Your task to perform on an android device: Show me recent news Image 0: 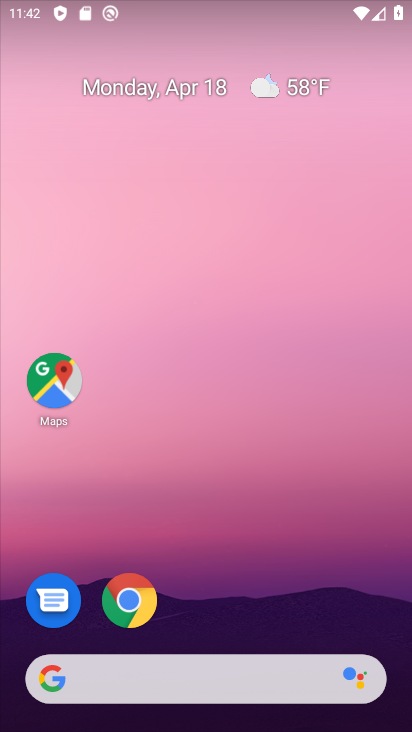
Step 0: click (91, 678)
Your task to perform on an android device: Show me recent news Image 1: 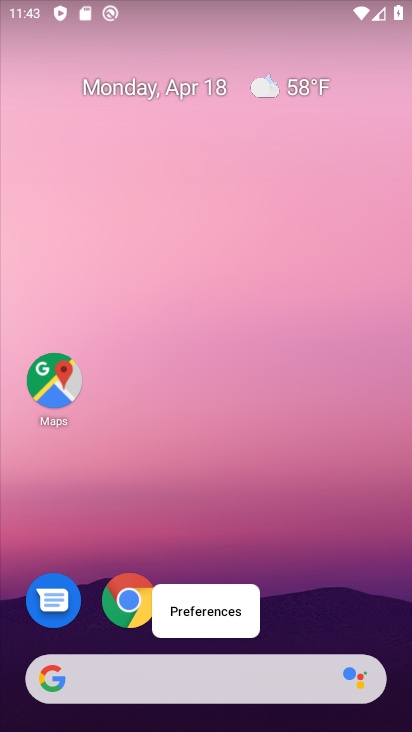
Step 1: drag from (221, 713) to (329, 422)
Your task to perform on an android device: Show me recent news Image 2: 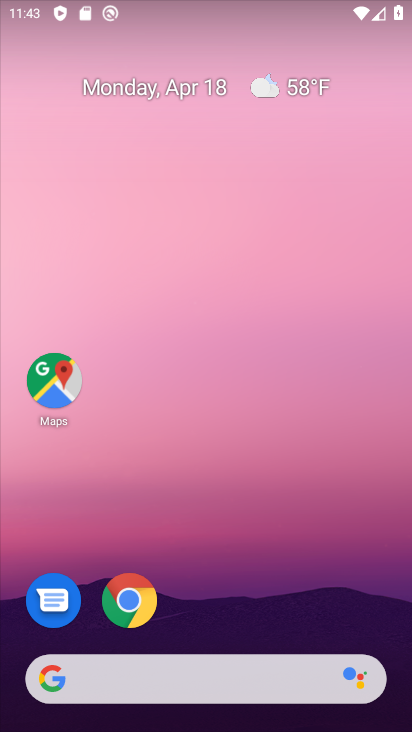
Step 2: click (143, 691)
Your task to perform on an android device: Show me recent news Image 3: 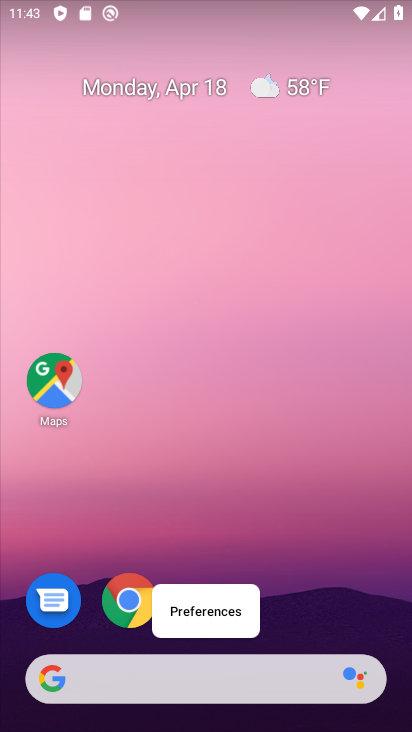
Step 3: click (108, 684)
Your task to perform on an android device: Show me recent news Image 4: 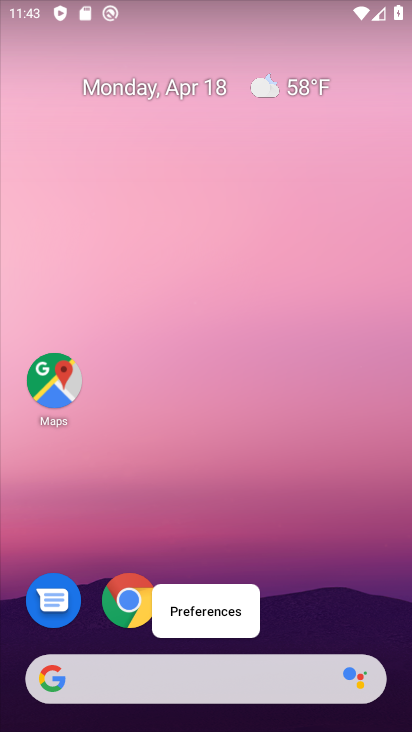
Step 4: click (74, 683)
Your task to perform on an android device: Show me recent news Image 5: 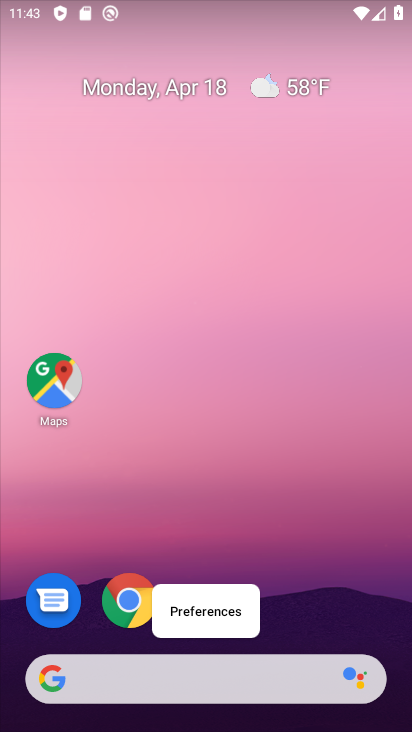
Step 5: drag from (201, 712) to (275, 232)
Your task to perform on an android device: Show me recent news Image 6: 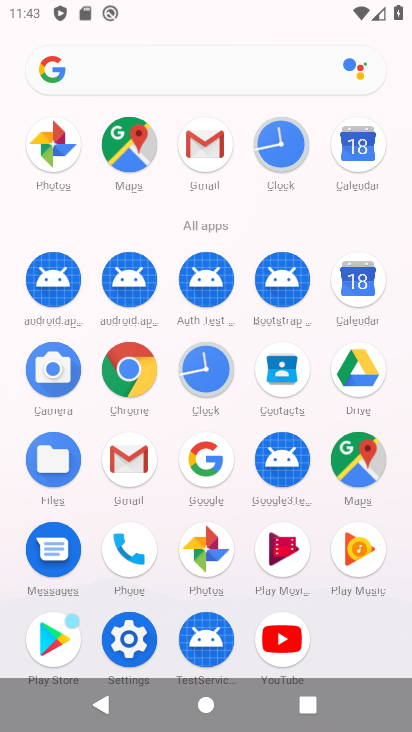
Step 6: click (81, 73)
Your task to perform on an android device: Show me recent news Image 7: 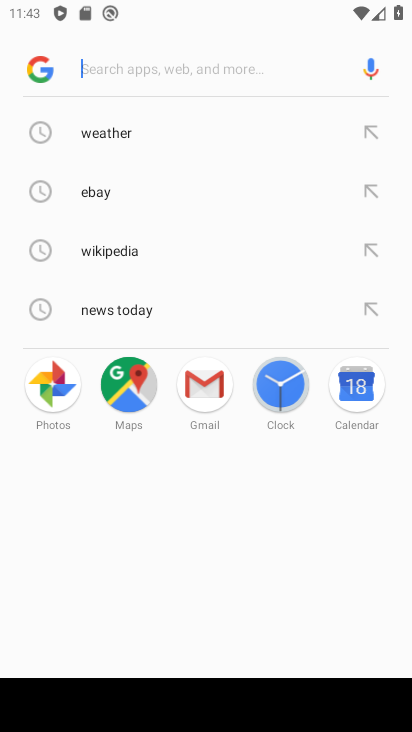
Step 7: click (37, 69)
Your task to perform on an android device: Show me recent news Image 8: 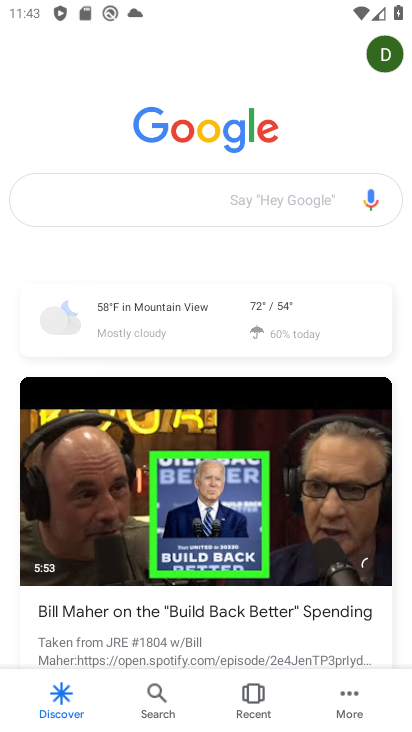
Step 8: task complete